Your task to perform on an android device: add a contact in the contacts app Image 0: 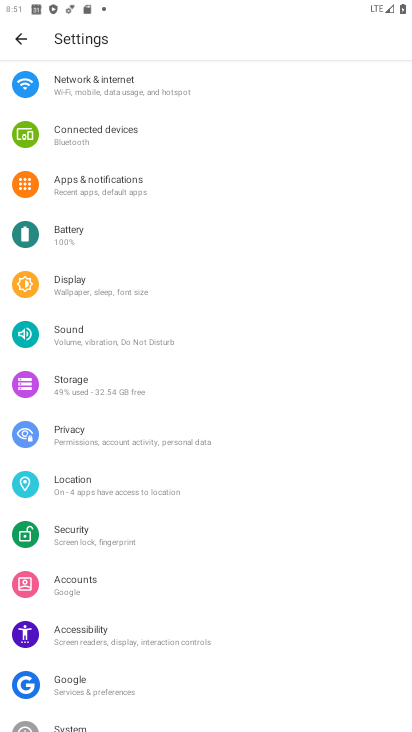
Step 0: press home button
Your task to perform on an android device: add a contact in the contacts app Image 1: 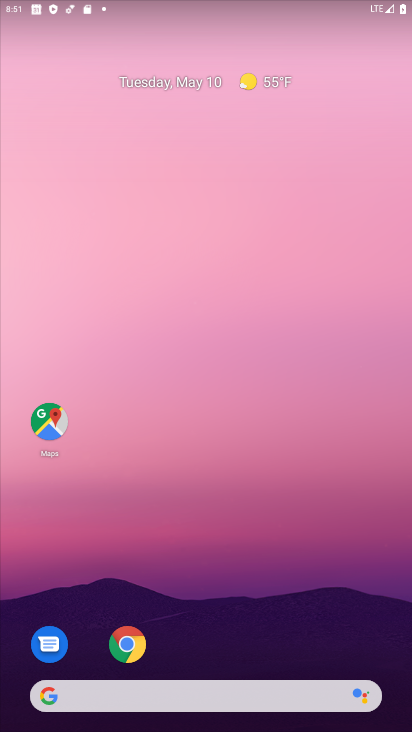
Step 1: drag from (282, 656) to (306, 212)
Your task to perform on an android device: add a contact in the contacts app Image 2: 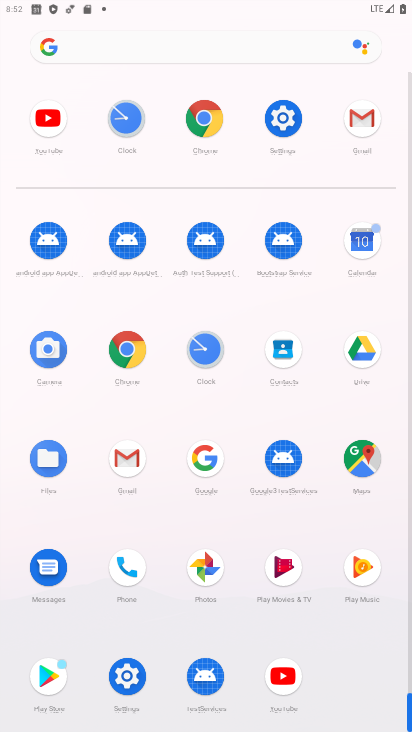
Step 2: click (283, 356)
Your task to perform on an android device: add a contact in the contacts app Image 3: 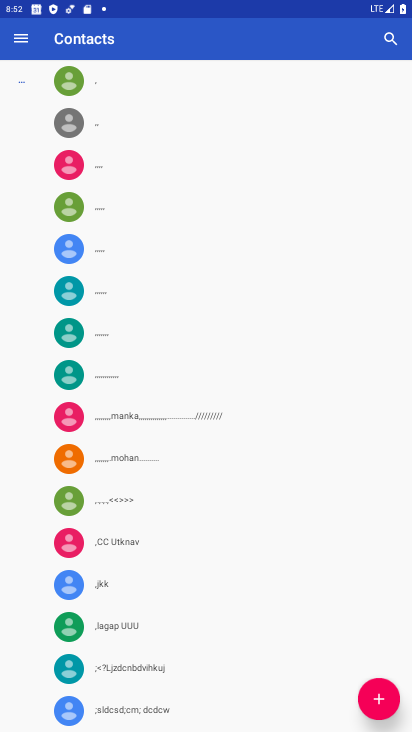
Step 3: click (387, 699)
Your task to perform on an android device: add a contact in the contacts app Image 4: 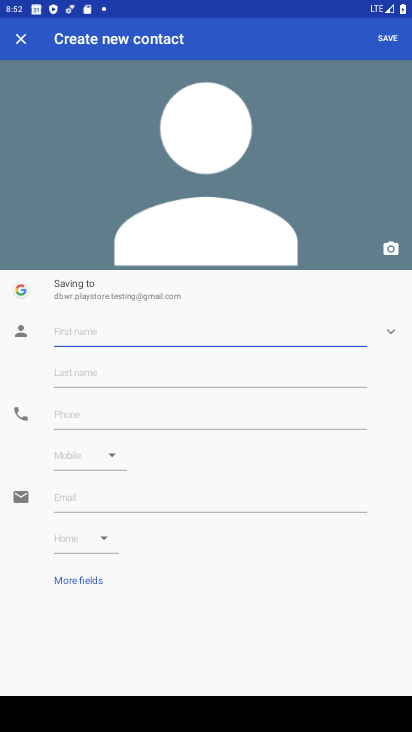
Step 4: type "kgkgjkb"
Your task to perform on an android device: add a contact in the contacts app Image 5: 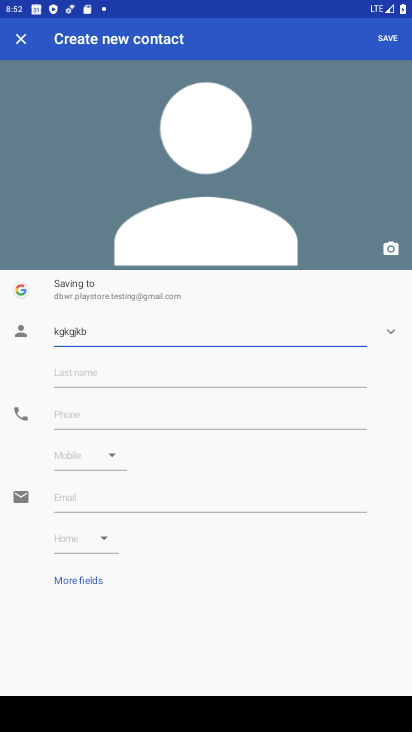
Step 5: click (166, 419)
Your task to perform on an android device: add a contact in the contacts app Image 6: 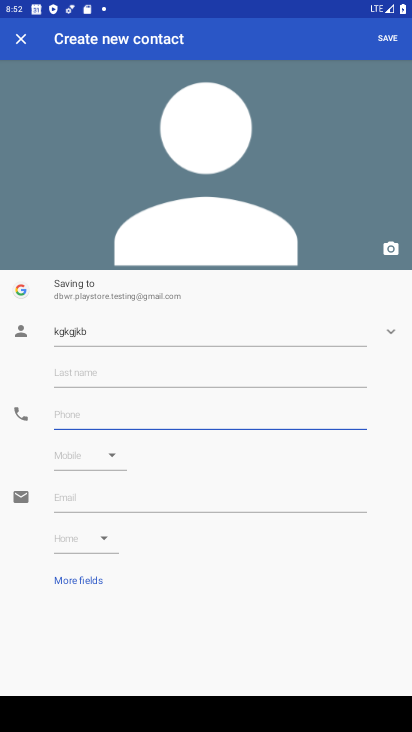
Step 6: type "86875867696"
Your task to perform on an android device: add a contact in the contacts app Image 7: 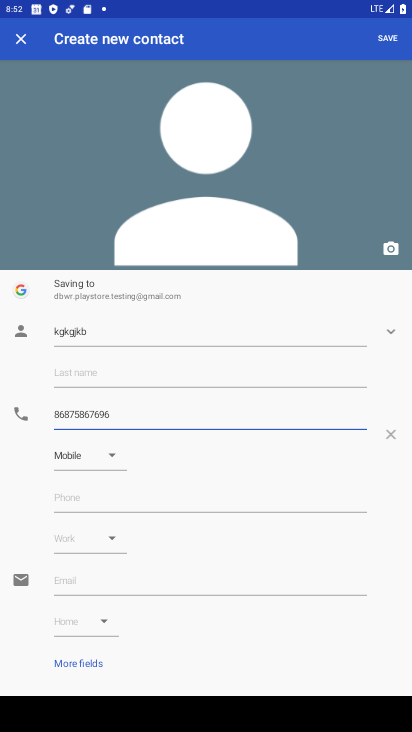
Step 7: click (389, 31)
Your task to perform on an android device: add a contact in the contacts app Image 8: 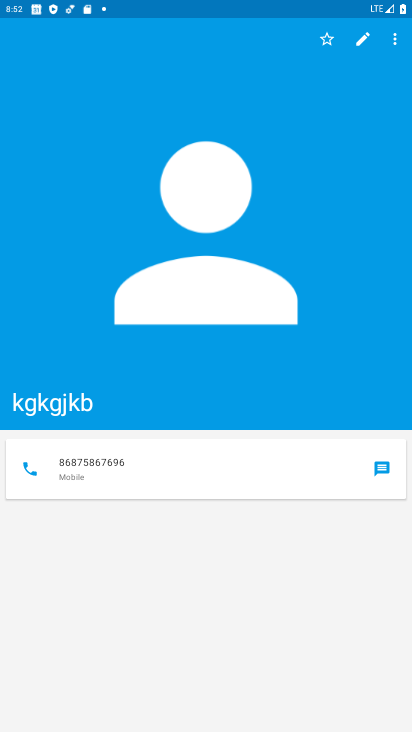
Step 8: task complete